Your task to perform on an android device: Add "logitech g pro" to the cart on walmart.com, then select checkout. Image 0: 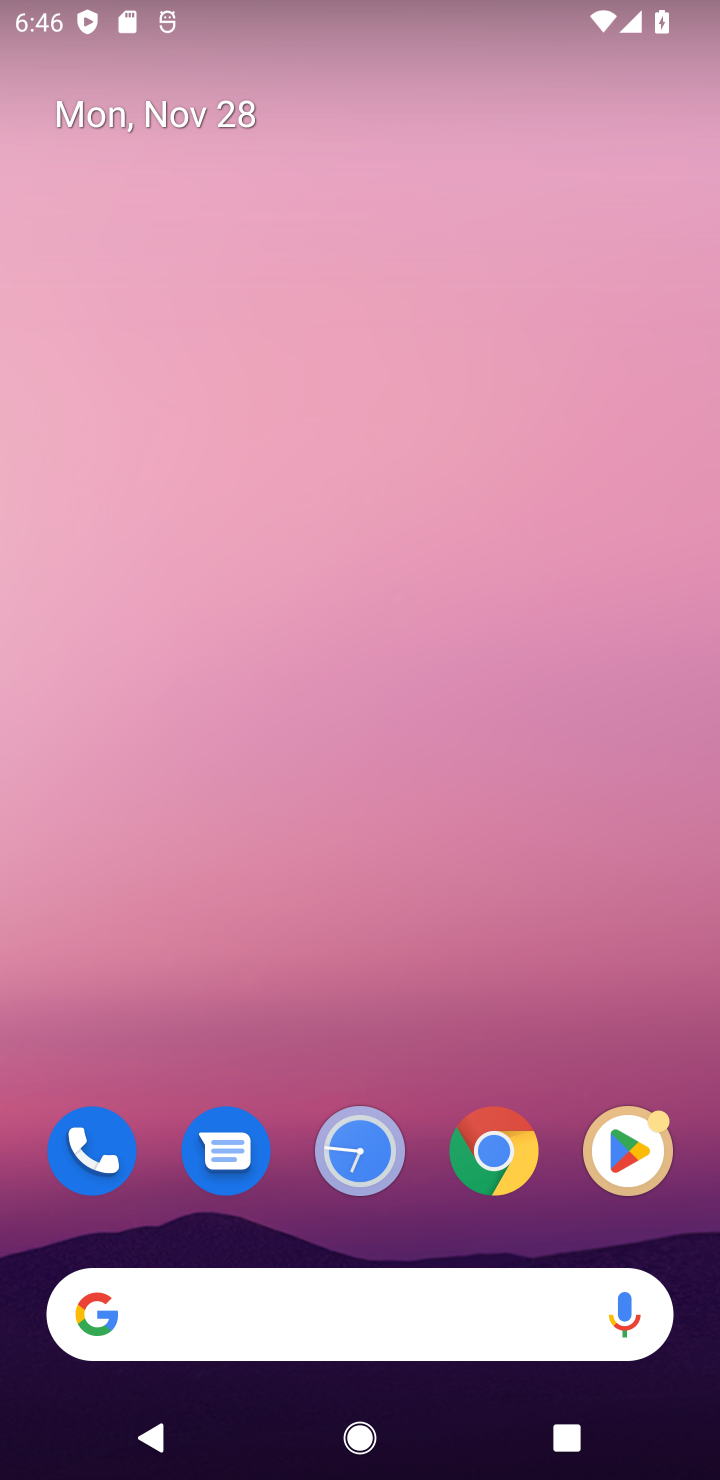
Step 0: click (327, 1326)
Your task to perform on an android device: Add "logitech g pro" to the cart on walmart.com, then select checkout. Image 1: 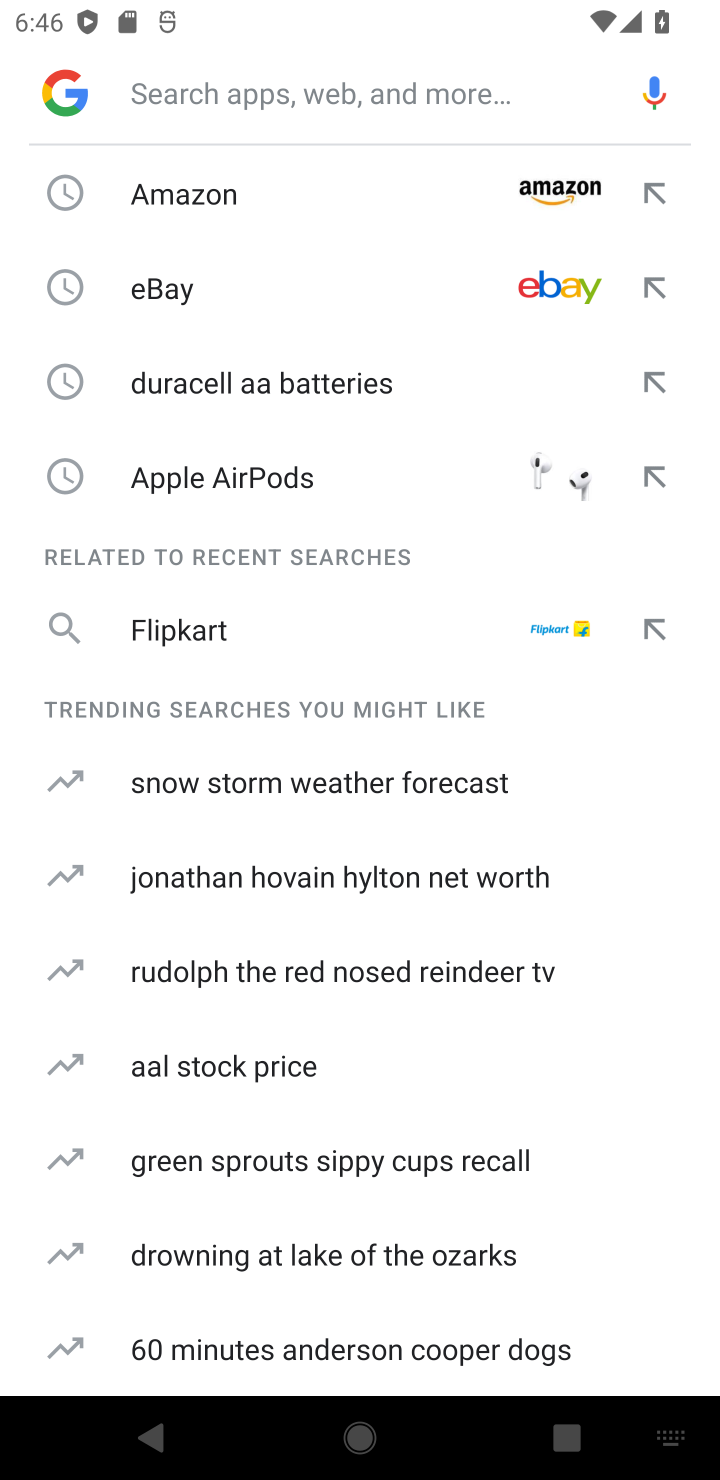
Step 1: type "walmart"
Your task to perform on an android device: Add "logitech g pro" to the cart on walmart.com, then select checkout. Image 2: 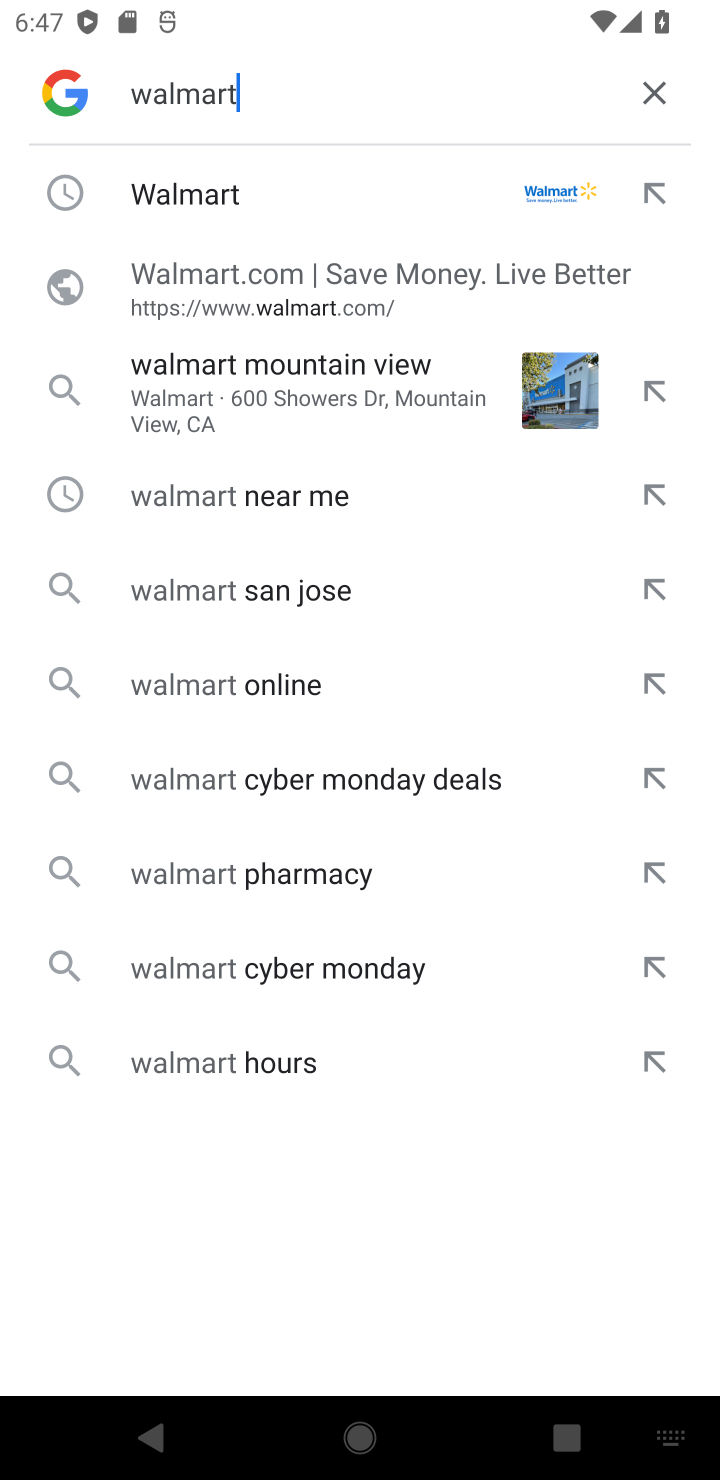
Step 2: click (199, 216)
Your task to perform on an android device: Add "logitech g pro" to the cart on walmart.com, then select checkout. Image 3: 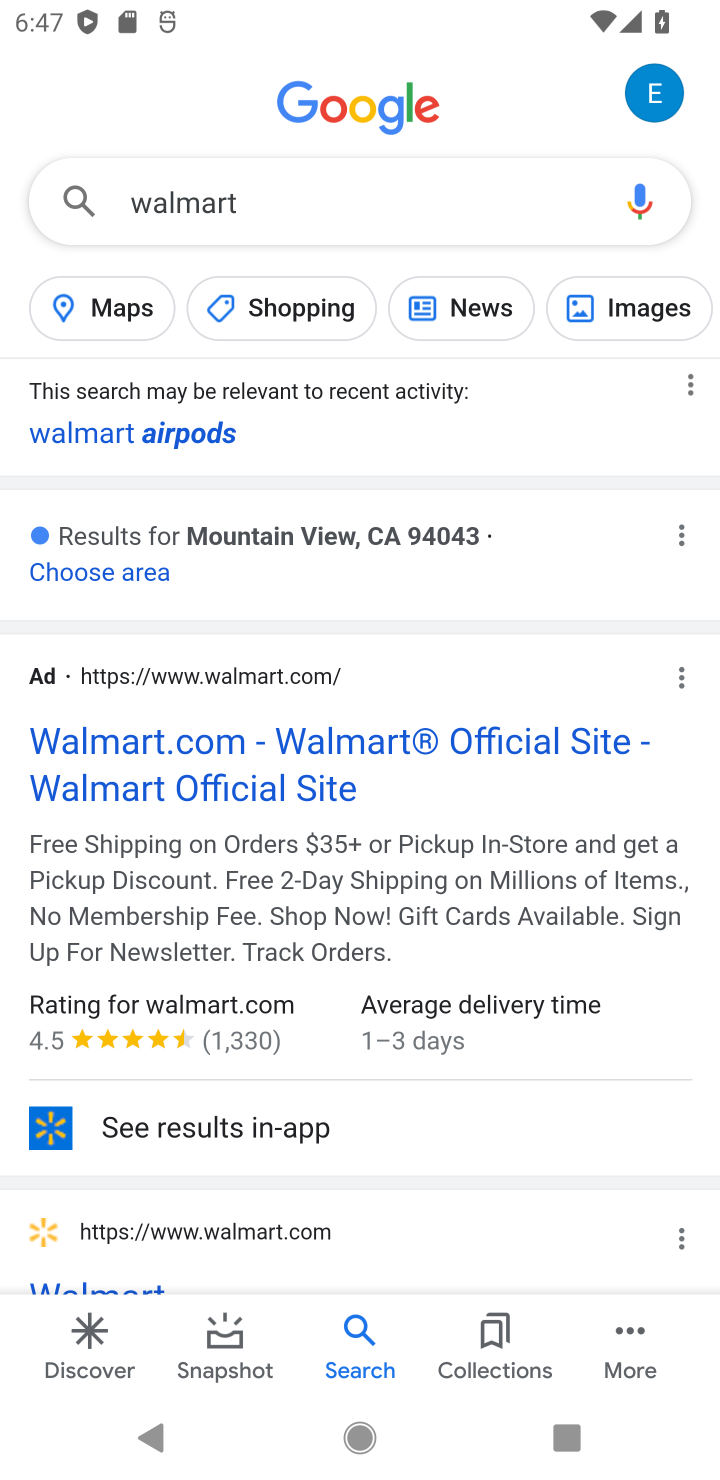
Step 3: click (92, 783)
Your task to perform on an android device: Add "logitech g pro" to the cart on walmart.com, then select checkout. Image 4: 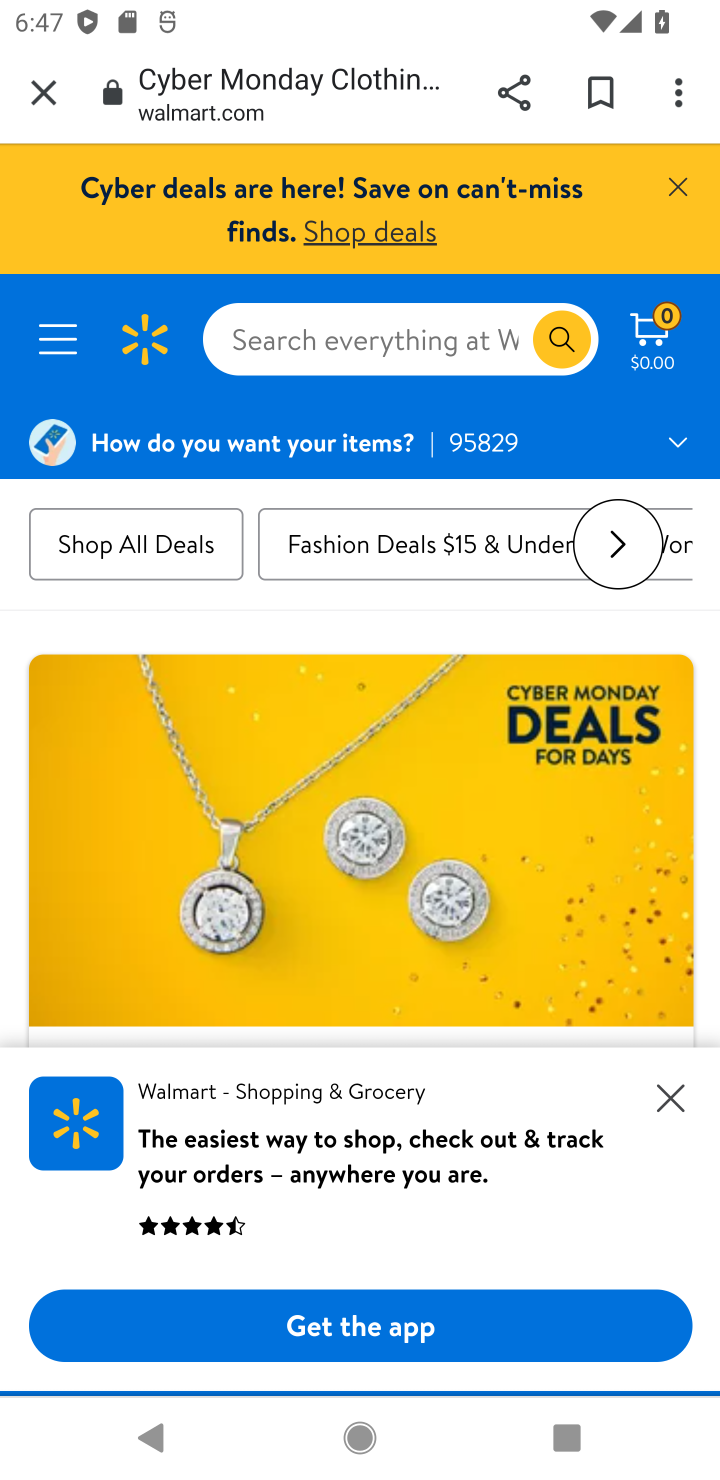
Step 4: click (368, 351)
Your task to perform on an android device: Add "logitech g pro" to the cart on walmart.com, then select checkout. Image 5: 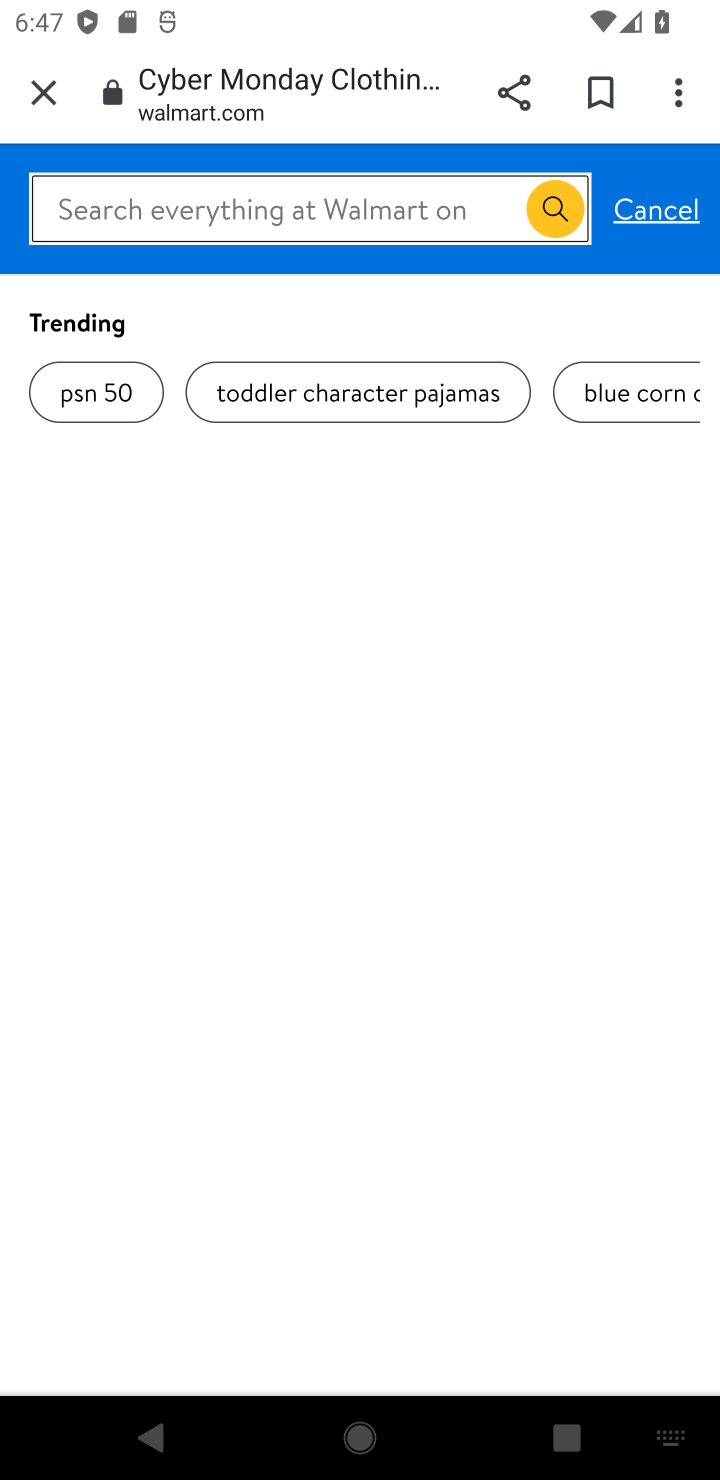
Step 5: type "logitech g pro"
Your task to perform on an android device: Add "logitech g pro" to the cart on walmart.com, then select checkout. Image 6: 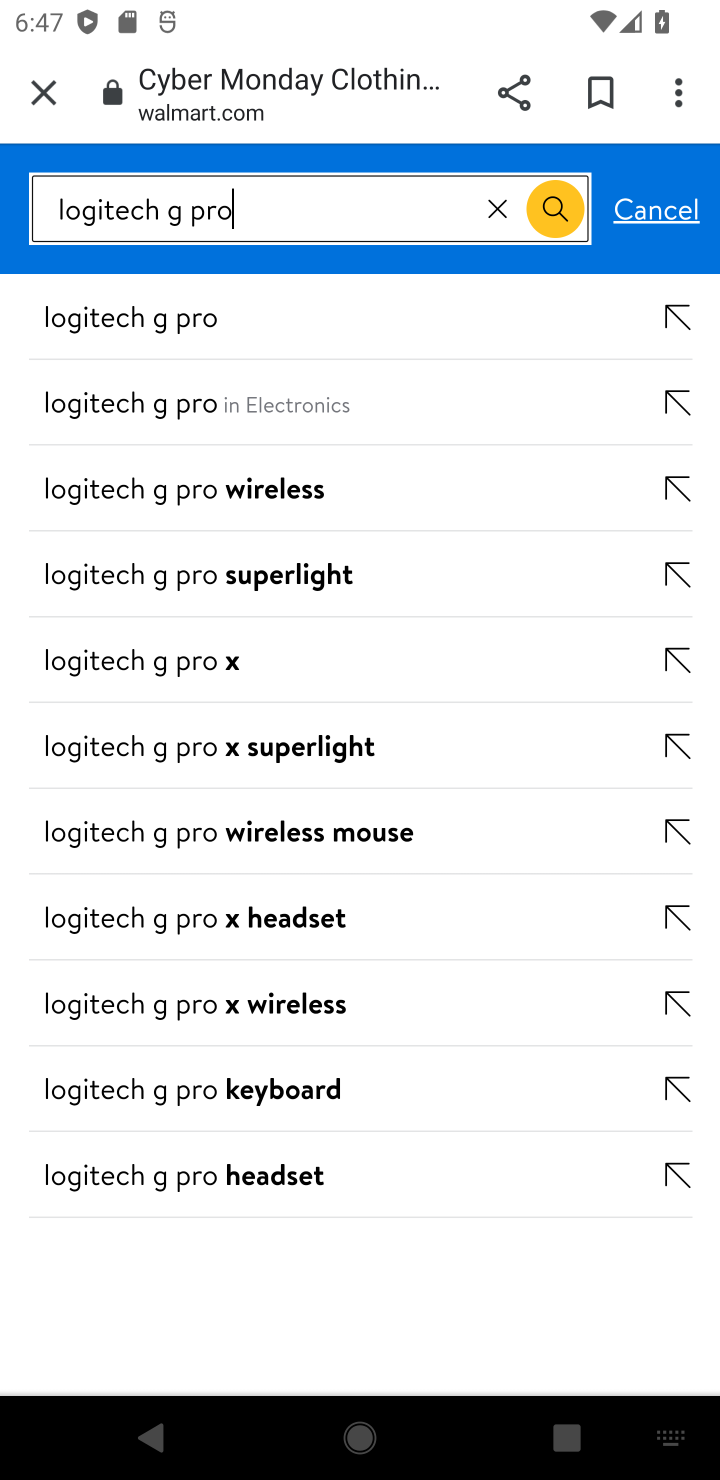
Step 6: click (231, 332)
Your task to perform on an android device: Add "logitech g pro" to the cart on walmart.com, then select checkout. Image 7: 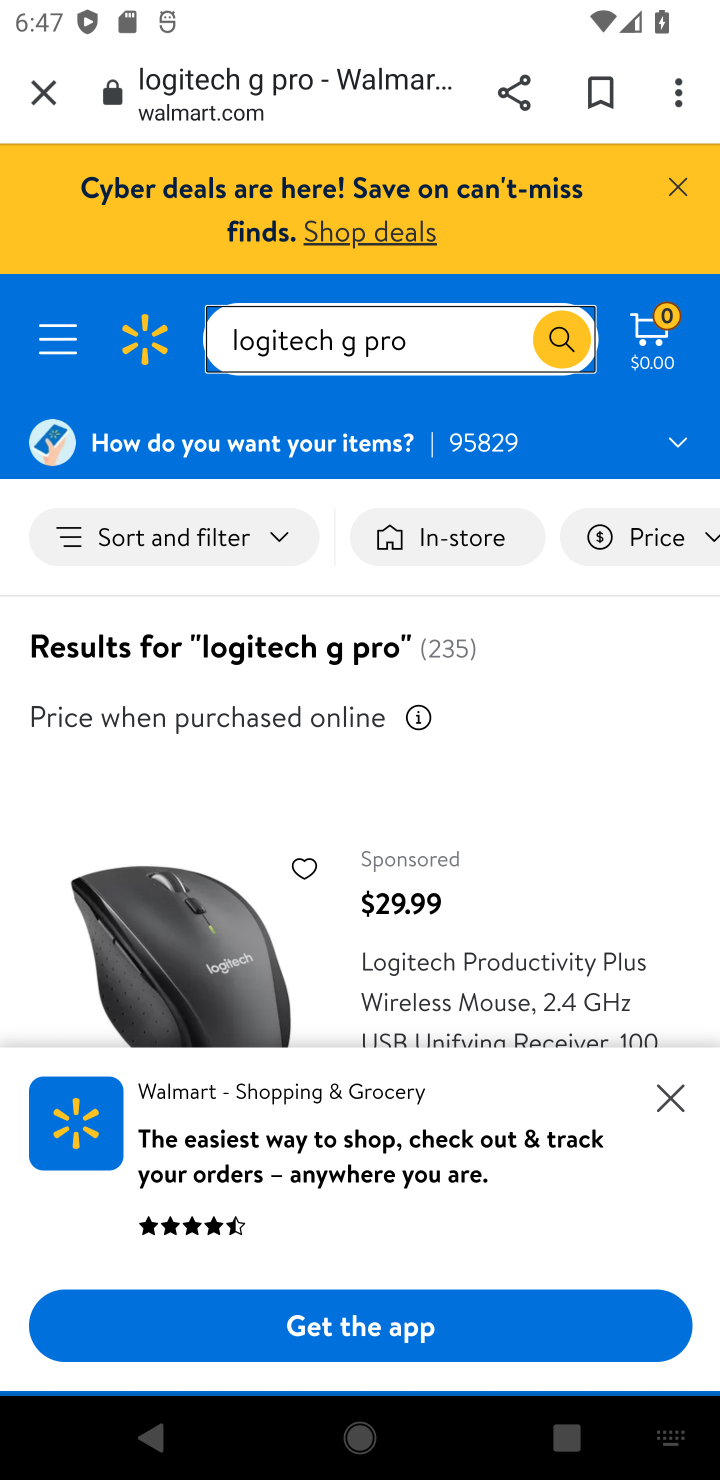
Step 7: click (659, 1111)
Your task to perform on an android device: Add "logitech g pro" to the cart on walmart.com, then select checkout. Image 8: 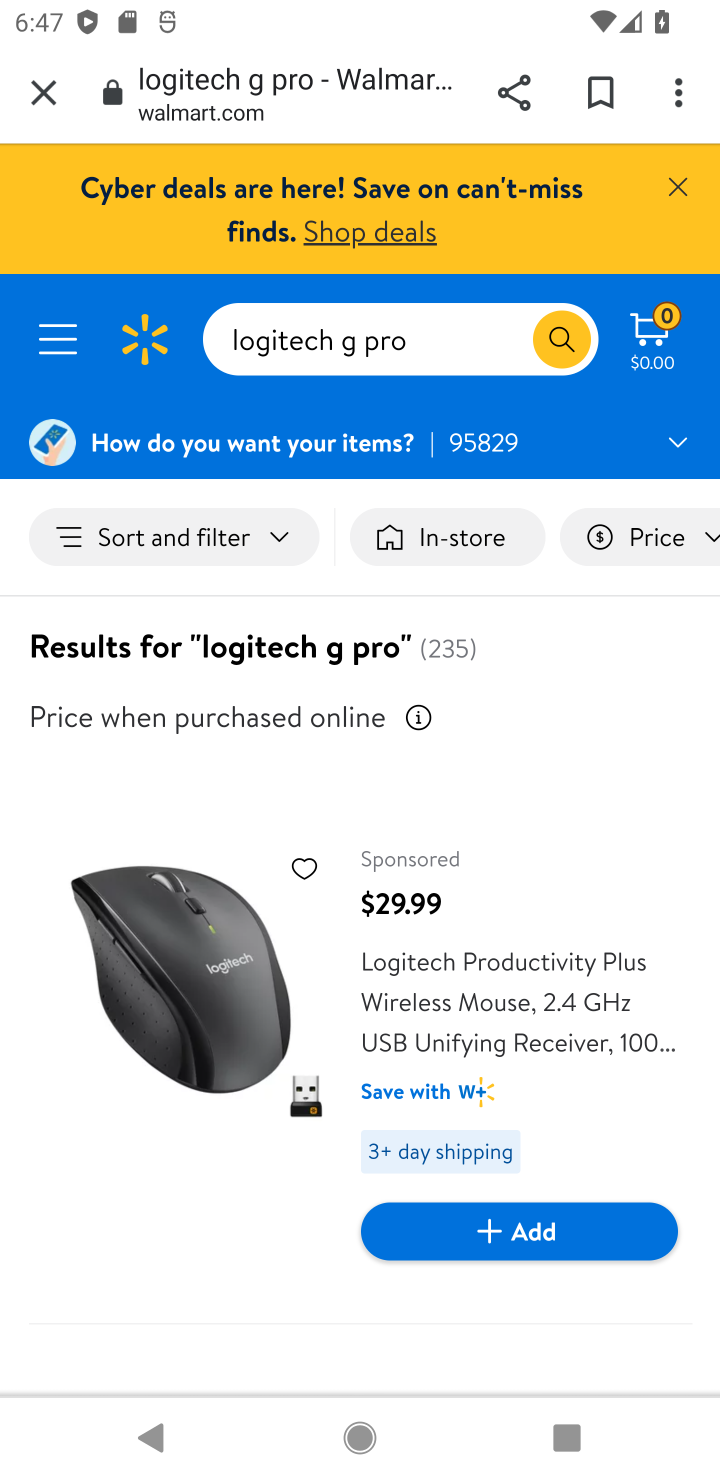
Step 8: click (446, 1226)
Your task to perform on an android device: Add "logitech g pro" to the cart on walmart.com, then select checkout. Image 9: 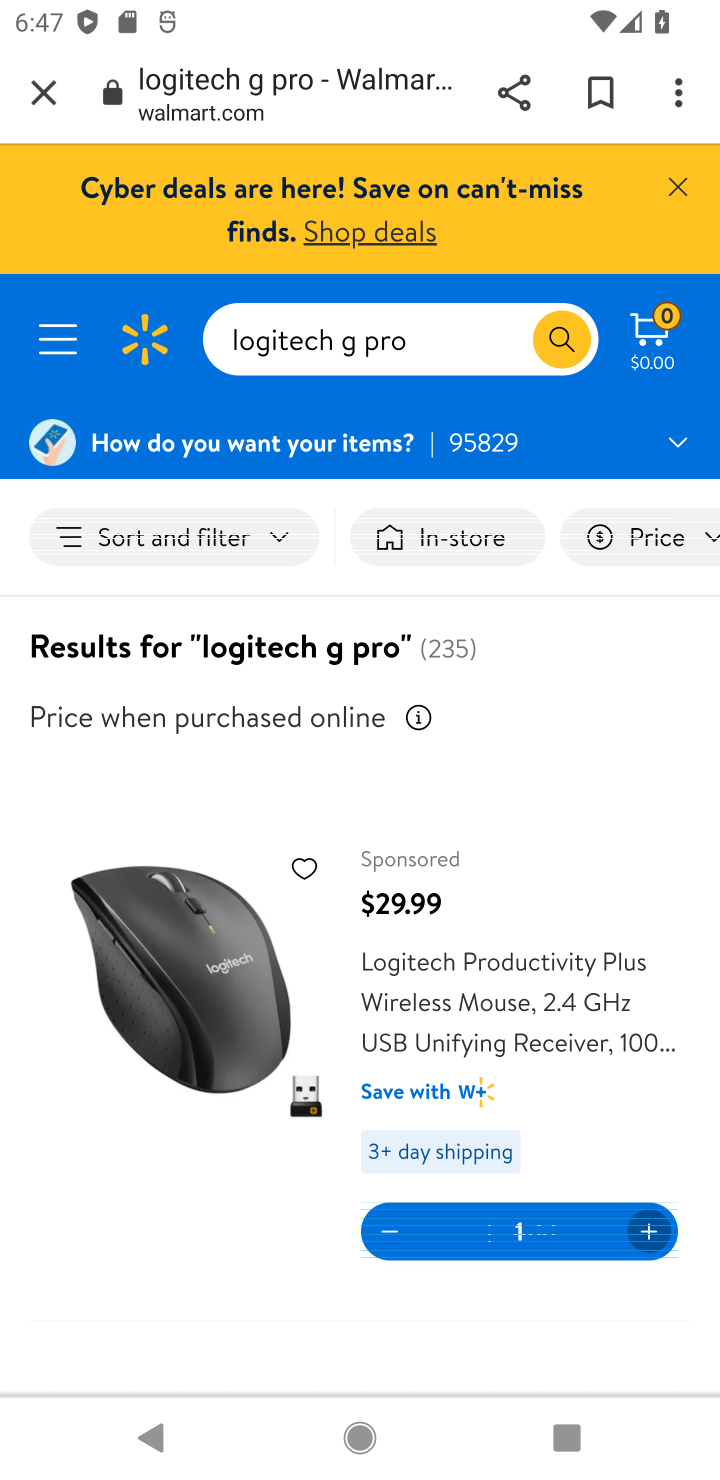
Step 9: task complete